Your task to perform on an android device: Go to privacy settings Image 0: 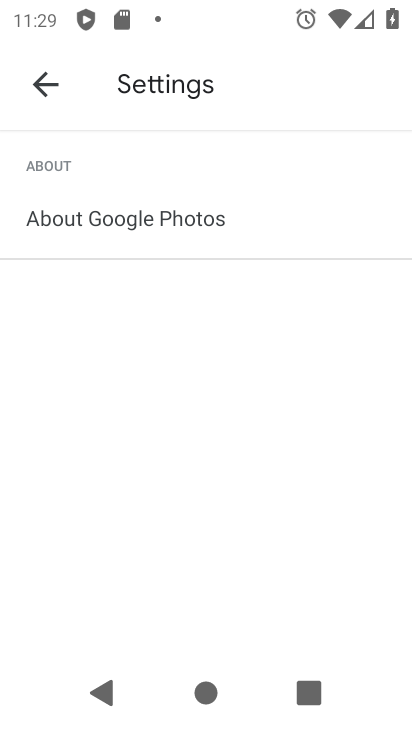
Step 0: press home button
Your task to perform on an android device: Go to privacy settings Image 1: 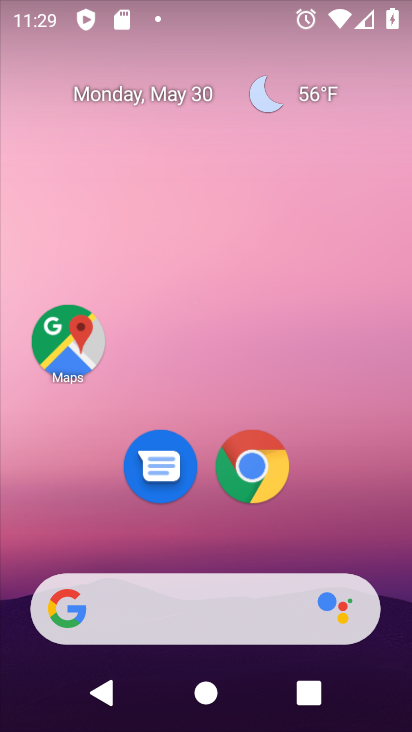
Step 1: drag from (166, 609) to (186, 112)
Your task to perform on an android device: Go to privacy settings Image 2: 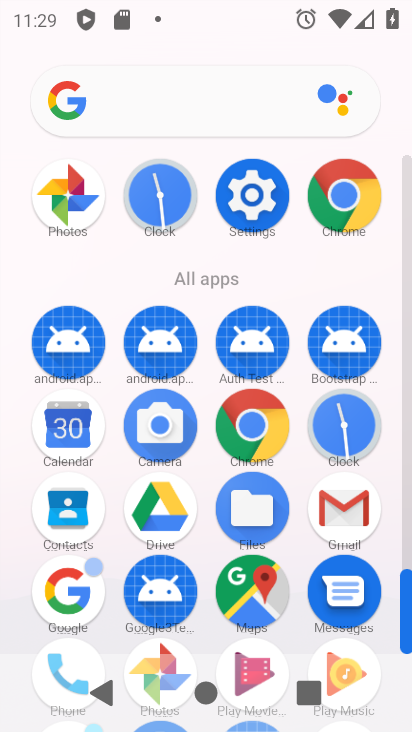
Step 2: click (241, 186)
Your task to perform on an android device: Go to privacy settings Image 3: 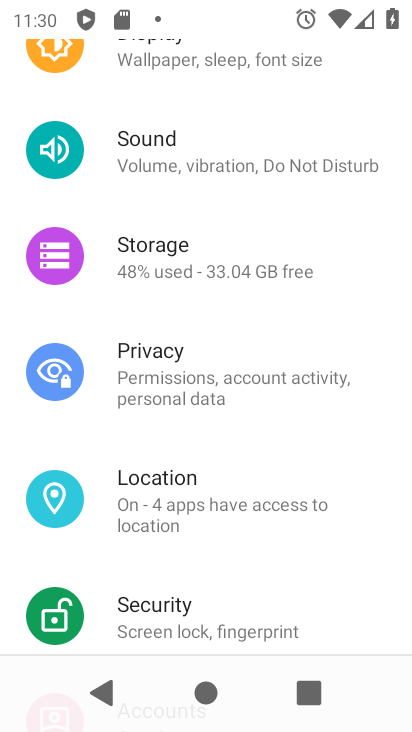
Step 3: click (201, 406)
Your task to perform on an android device: Go to privacy settings Image 4: 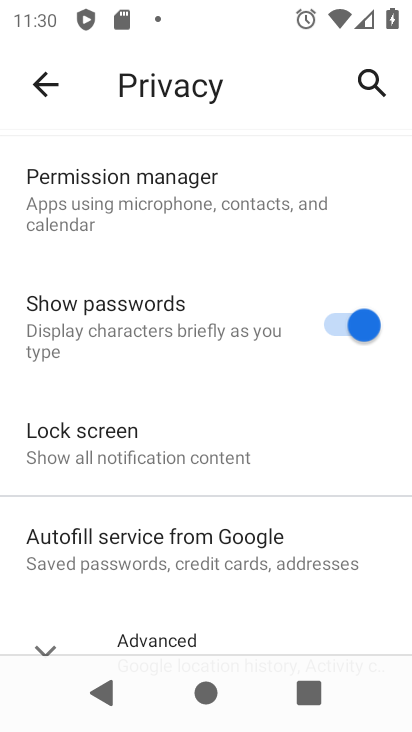
Step 4: task complete